Your task to perform on an android device: read, delete, or share a saved page in the chrome app Image 0: 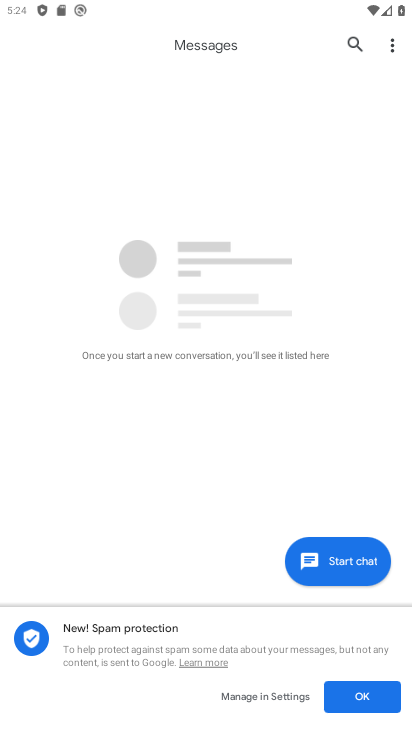
Step 0: press home button
Your task to perform on an android device: read, delete, or share a saved page in the chrome app Image 1: 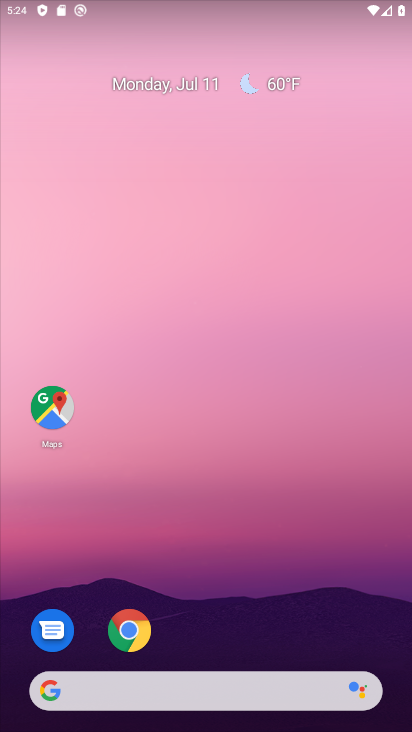
Step 1: click (125, 630)
Your task to perform on an android device: read, delete, or share a saved page in the chrome app Image 2: 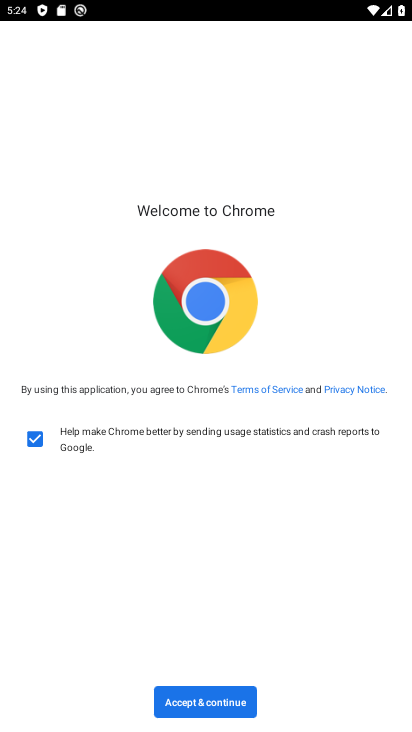
Step 2: click (188, 713)
Your task to perform on an android device: read, delete, or share a saved page in the chrome app Image 3: 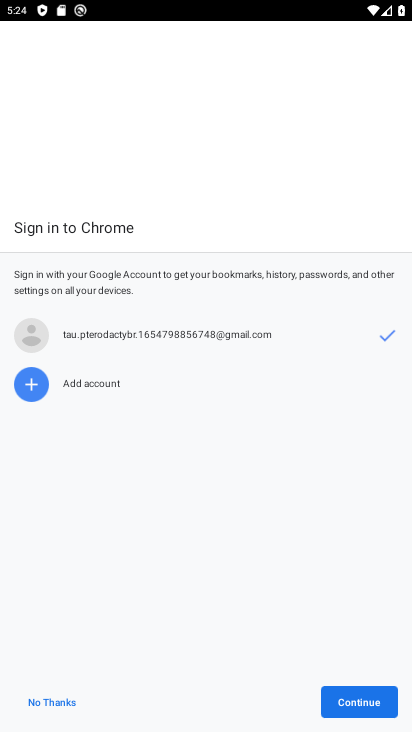
Step 3: click (188, 713)
Your task to perform on an android device: read, delete, or share a saved page in the chrome app Image 4: 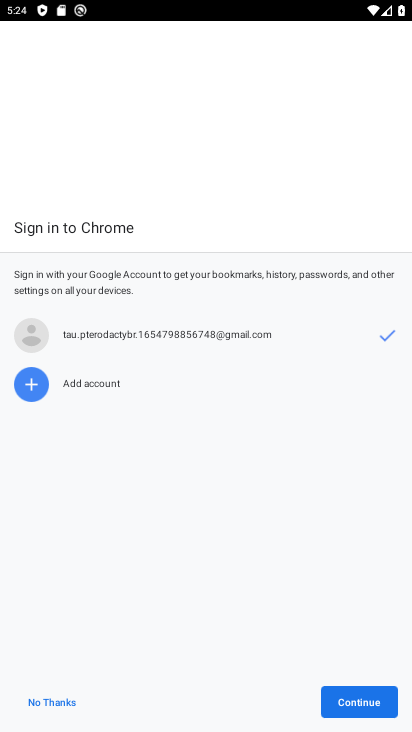
Step 4: click (357, 705)
Your task to perform on an android device: read, delete, or share a saved page in the chrome app Image 5: 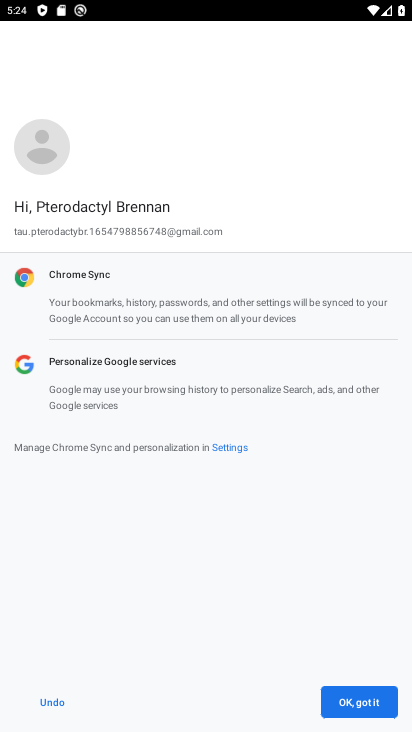
Step 5: click (357, 705)
Your task to perform on an android device: read, delete, or share a saved page in the chrome app Image 6: 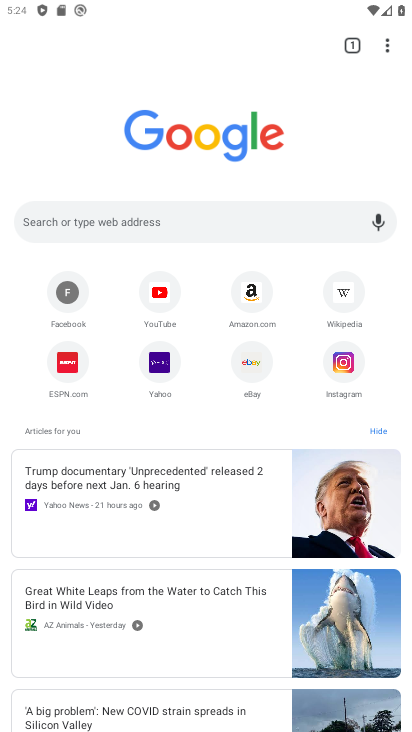
Step 6: click (388, 49)
Your task to perform on an android device: read, delete, or share a saved page in the chrome app Image 7: 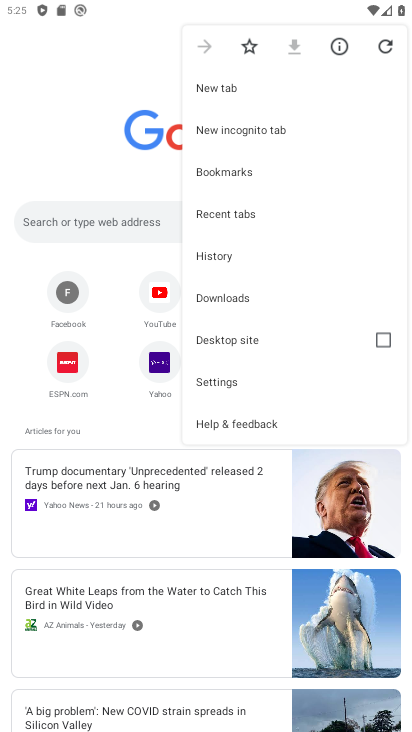
Step 7: task complete